Your task to perform on an android device: What's the weather going to be tomorrow? Image 0: 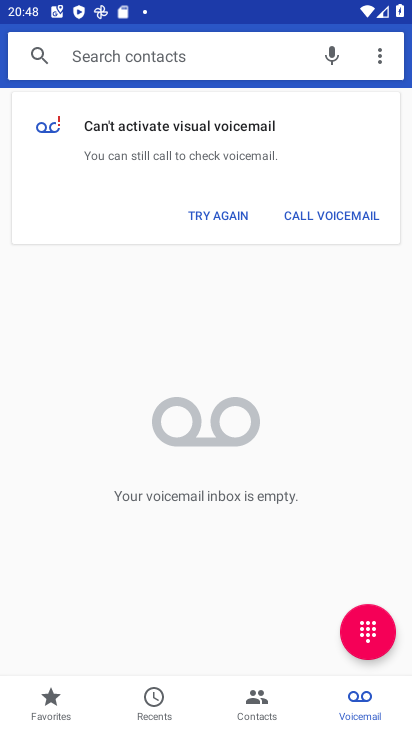
Step 0: press home button
Your task to perform on an android device: What's the weather going to be tomorrow? Image 1: 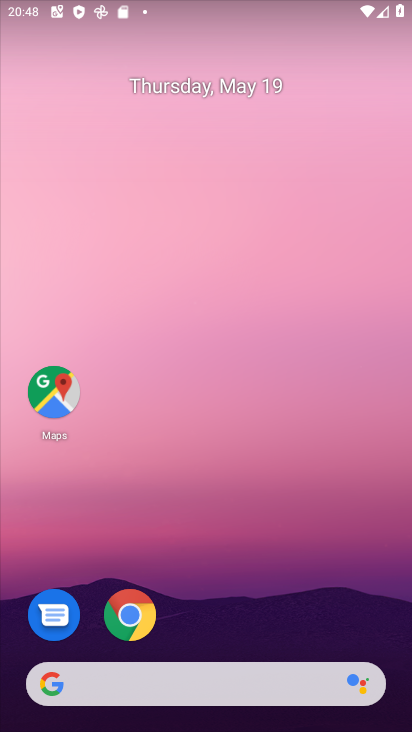
Step 1: drag from (203, 597) to (219, 40)
Your task to perform on an android device: What's the weather going to be tomorrow? Image 2: 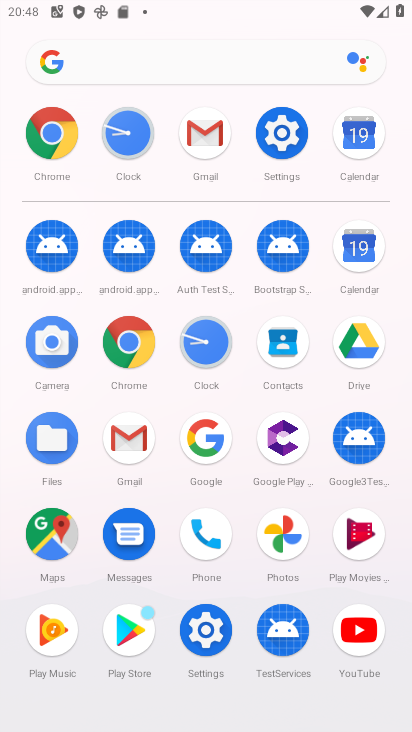
Step 2: click (208, 444)
Your task to perform on an android device: What's the weather going to be tomorrow? Image 3: 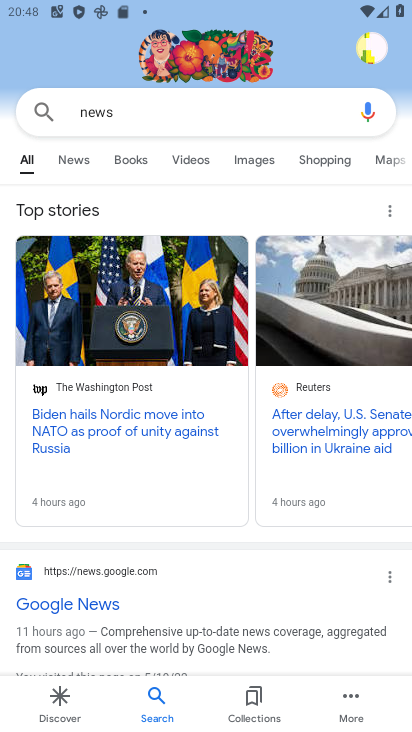
Step 3: click (161, 105)
Your task to perform on an android device: What's the weather going to be tomorrow? Image 4: 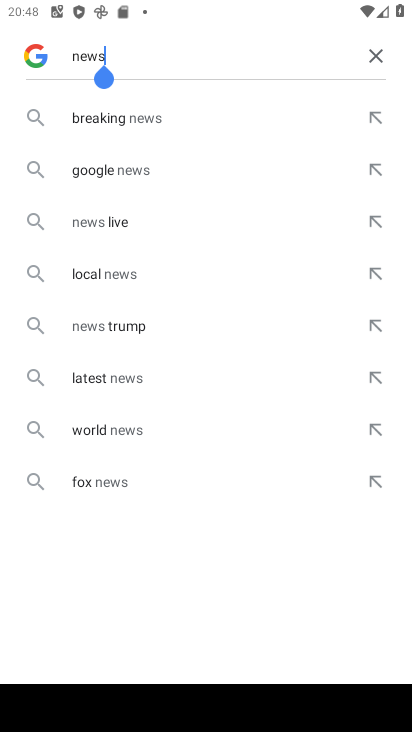
Step 4: click (366, 53)
Your task to perform on an android device: What's the weather going to be tomorrow? Image 5: 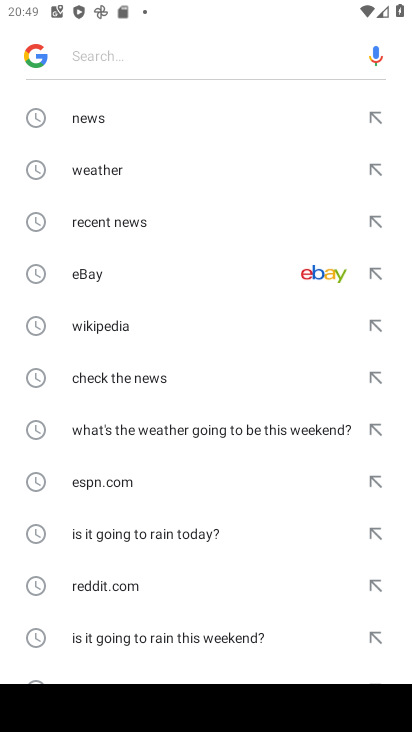
Step 5: type "weather going to be tomorrow"
Your task to perform on an android device: What's the weather going to be tomorrow? Image 6: 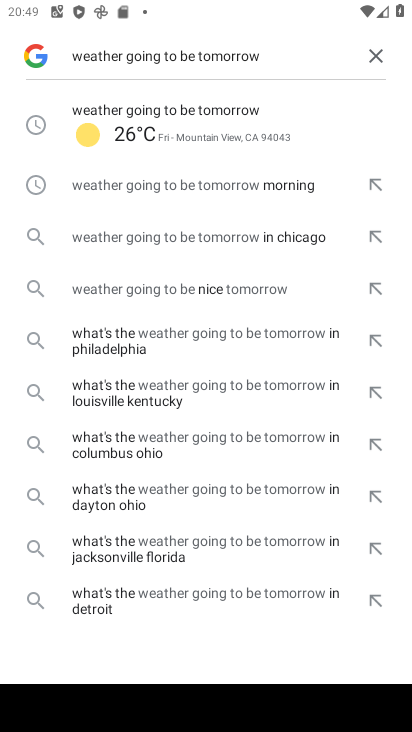
Step 6: click (156, 92)
Your task to perform on an android device: What's the weather going to be tomorrow? Image 7: 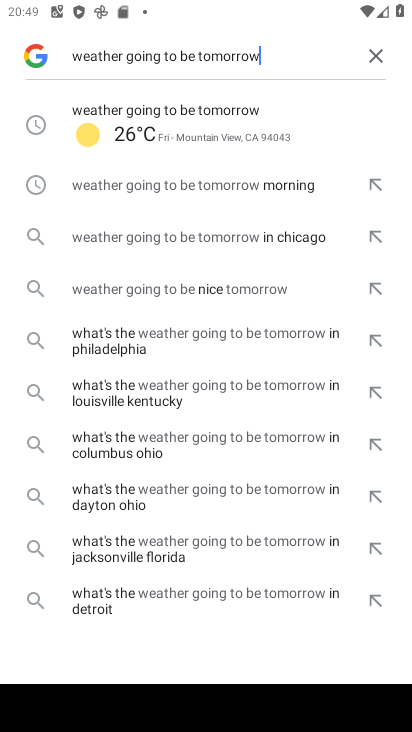
Step 7: click (209, 124)
Your task to perform on an android device: What's the weather going to be tomorrow? Image 8: 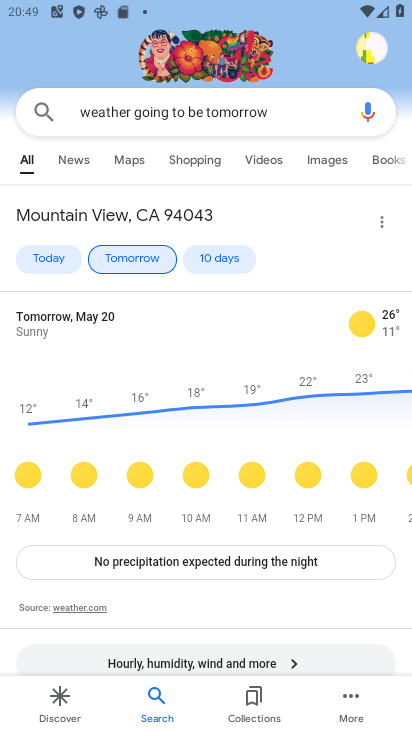
Step 8: task complete